Your task to perform on an android device: search for starred emails in the gmail app Image 0: 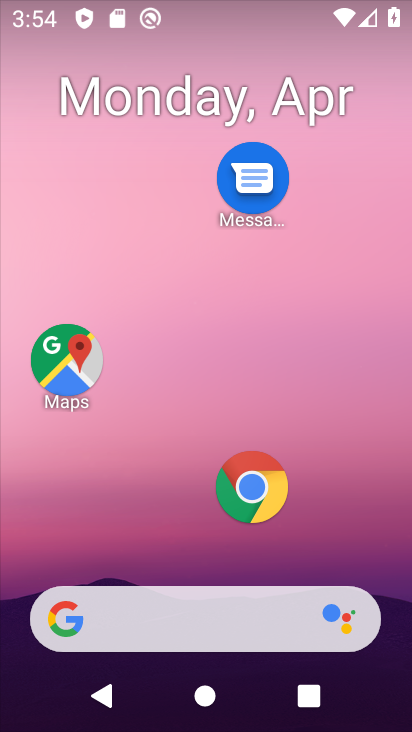
Step 0: drag from (181, 550) to (260, 54)
Your task to perform on an android device: search for starred emails in the gmail app Image 1: 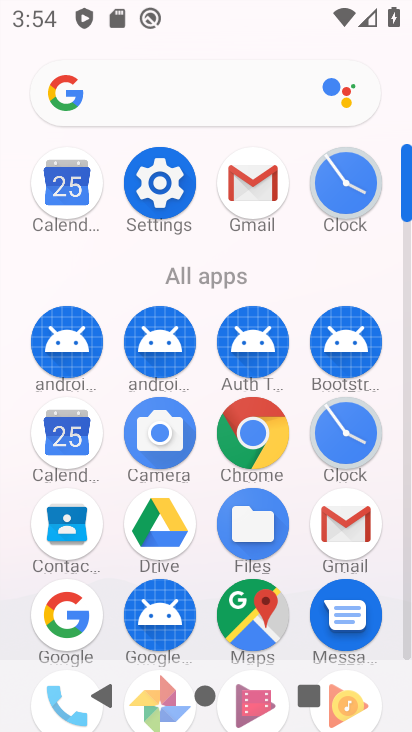
Step 1: click (339, 527)
Your task to perform on an android device: search for starred emails in the gmail app Image 2: 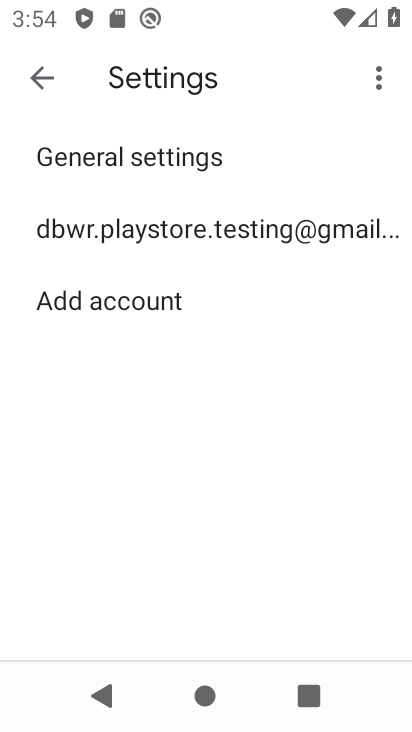
Step 2: click (45, 86)
Your task to perform on an android device: search for starred emails in the gmail app Image 3: 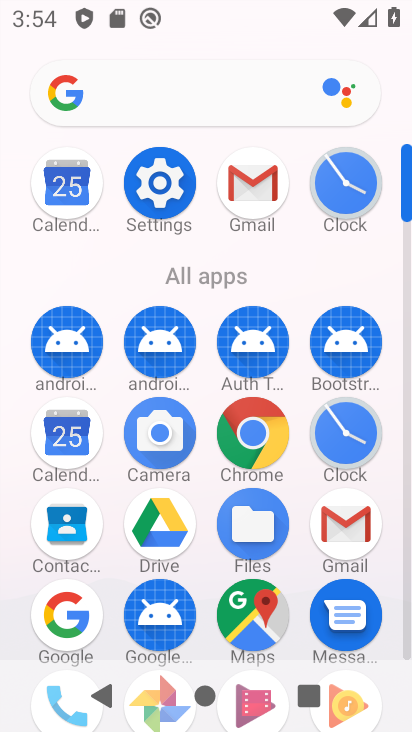
Step 3: click (341, 522)
Your task to perform on an android device: search for starred emails in the gmail app Image 4: 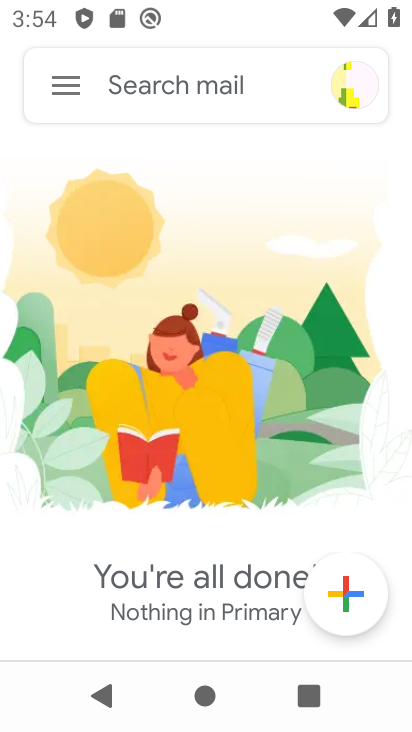
Step 4: click (60, 80)
Your task to perform on an android device: search for starred emails in the gmail app Image 5: 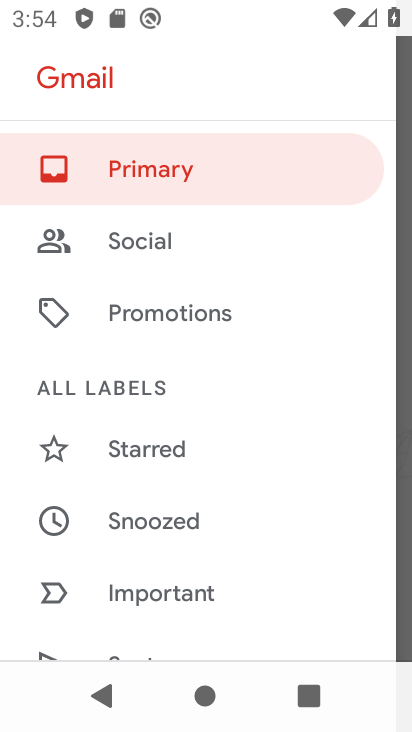
Step 5: click (143, 461)
Your task to perform on an android device: search for starred emails in the gmail app Image 6: 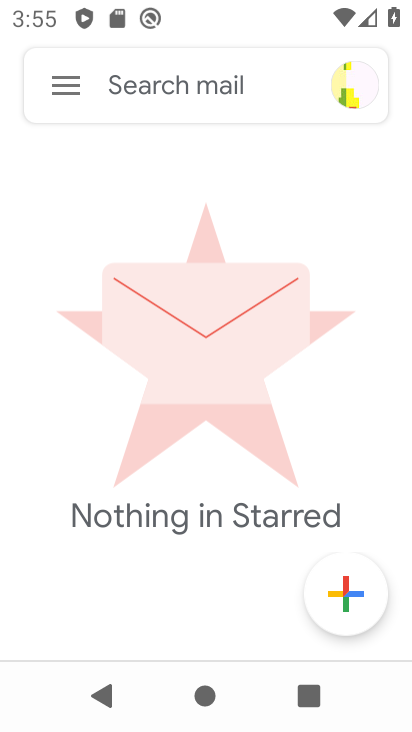
Step 6: task complete